Your task to perform on an android device: refresh tabs in the chrome app Image 0: 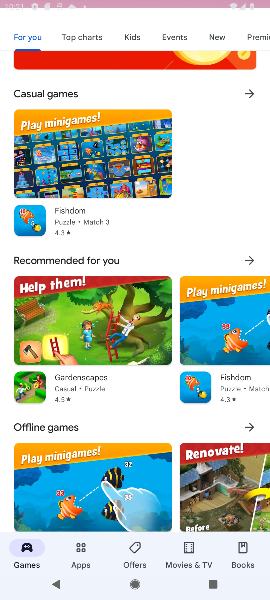
Step 0: press home button
Your task to perform on an android device: refresh tabs in the chrome app Image 1: 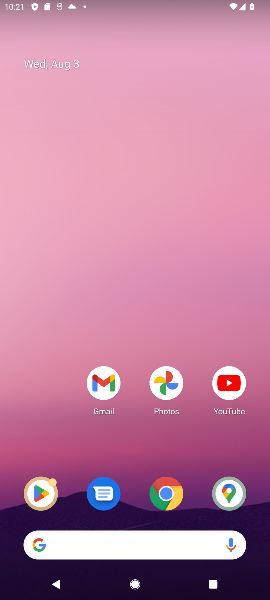
Step 1: click (160, 485)
Your task to perform on an android device: refresh tabs in the chrome app Image 2: 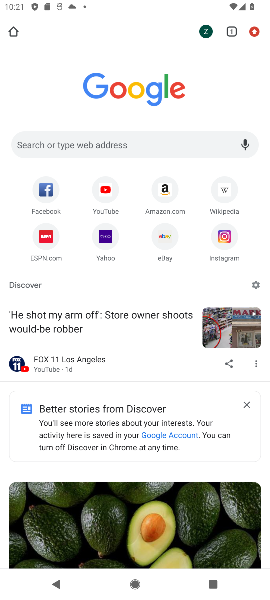
Step 2: click (253, 33)
Your task to perform on an android device: refresh tabs in the chrome app Image 3: 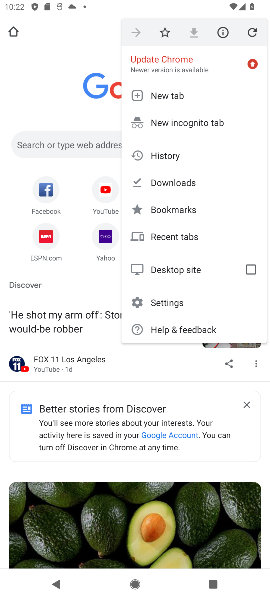
Step 3: click (253, 33)
Your task to perform on an android device: refresh tabs in the chrome app Image 4: 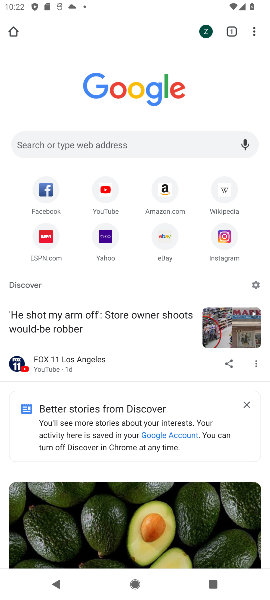
Step 4: task complete